Your task to perform on an android device: check data usage Image 0: 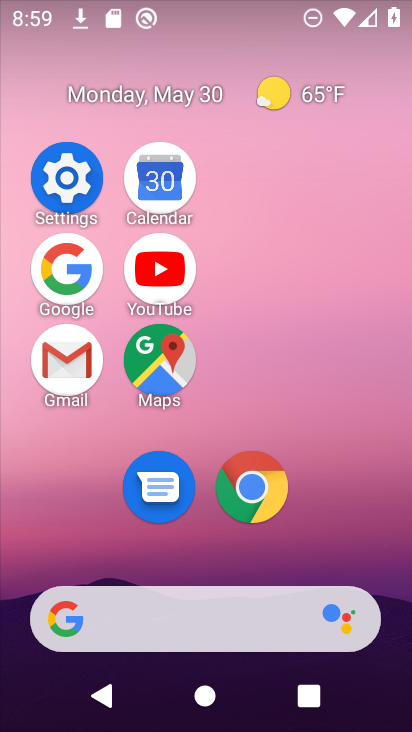
Step 0: click (69, 173)
Your task to perform on an android device: check data usage Image 1: 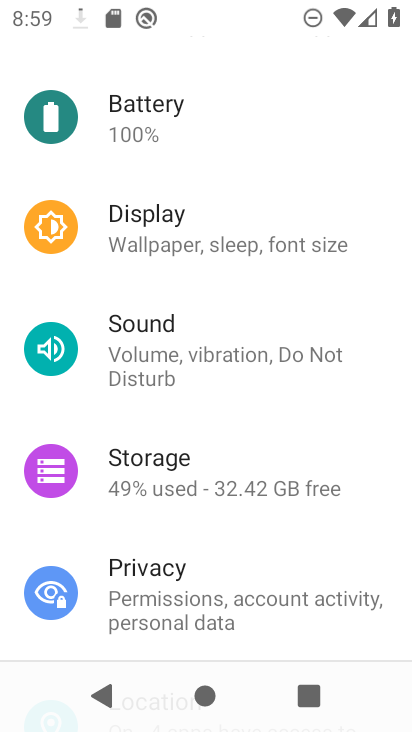
Step 1: drag from (324, 133) to (368, 645)
Your task to perform on an android device: check data usage Image 2: 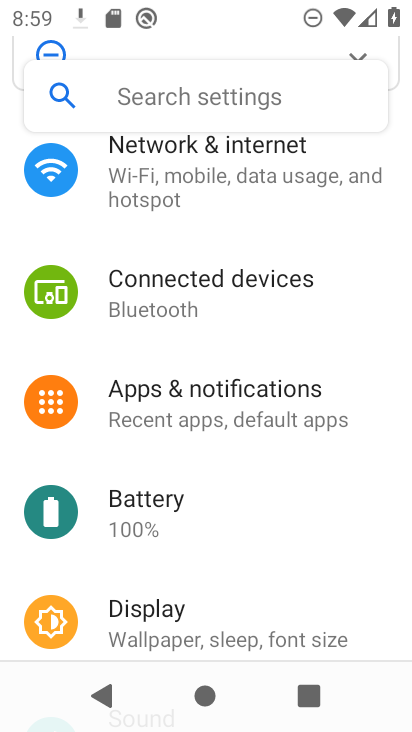
Step 2: click (296, 145)
Your task to perform on an android device: check data usage Image 3: 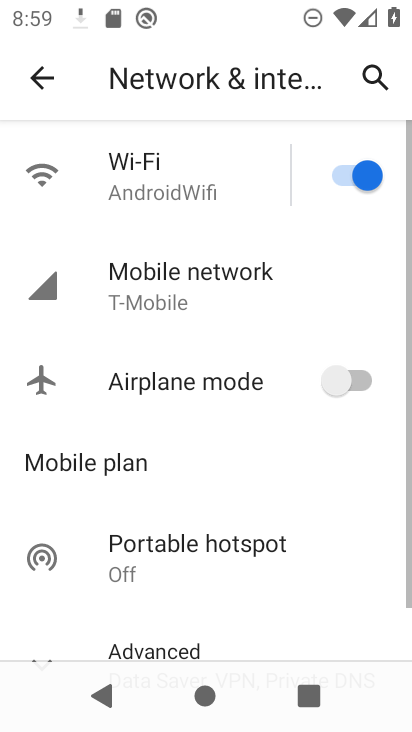
Step 3: click (233, 285)
Your task to perform on an android device: check data usage Image 4: 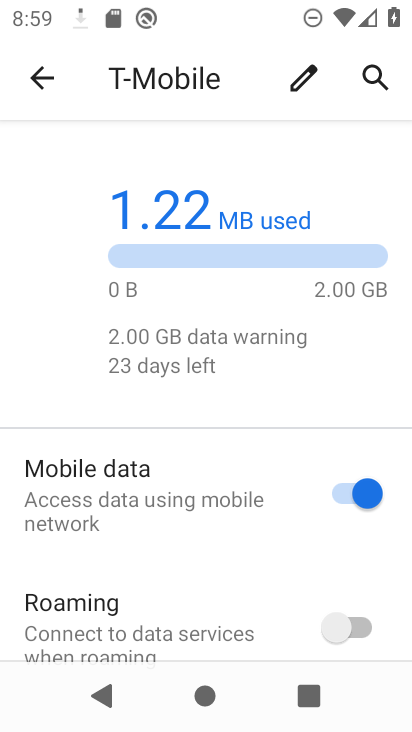
Step 4: task complete